Your task to perform on an android device: change text size in settings app Image 0: 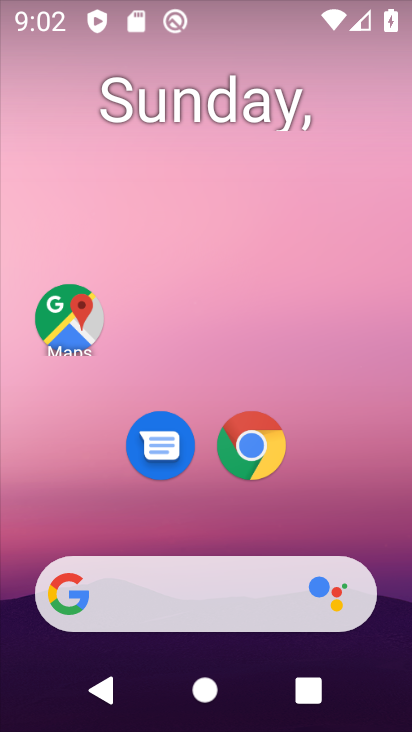
Step 0: drag from (144, 593) to (285, 74)
Your task to perform on an android device: change text size in settings app Image 1: 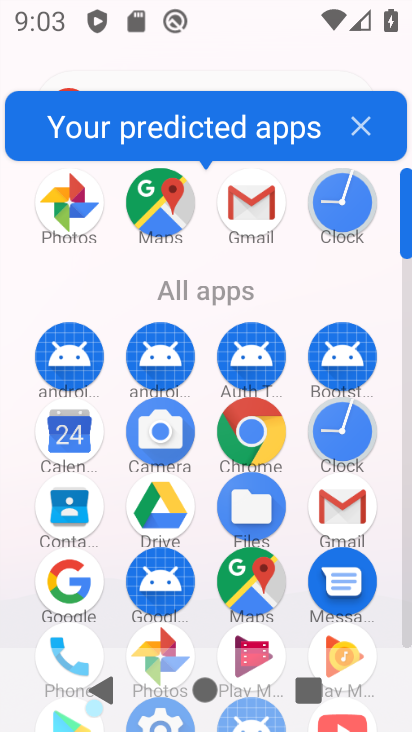
Step 1: drag from (159, 640) to (358, 145)
Your task to perform on an android device: change text size in settings app Image 2: 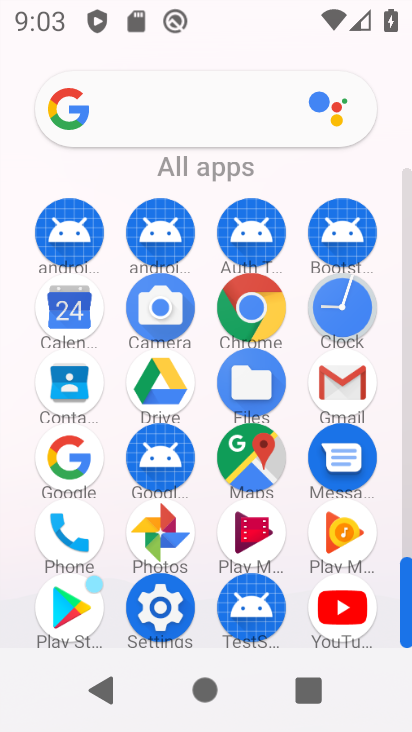
Step 2: click (163, 612)
Your task to perform on an android device: change text size in settings app Image 3: 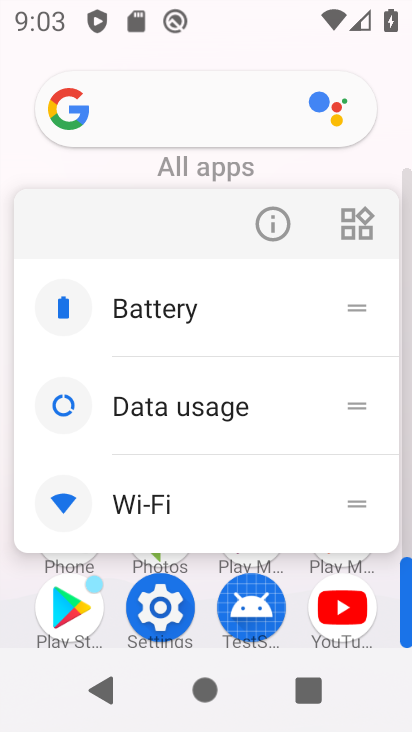
Step 3: click (165, 619)
Your task to perform on an android device: change text size in settings app Image 4: 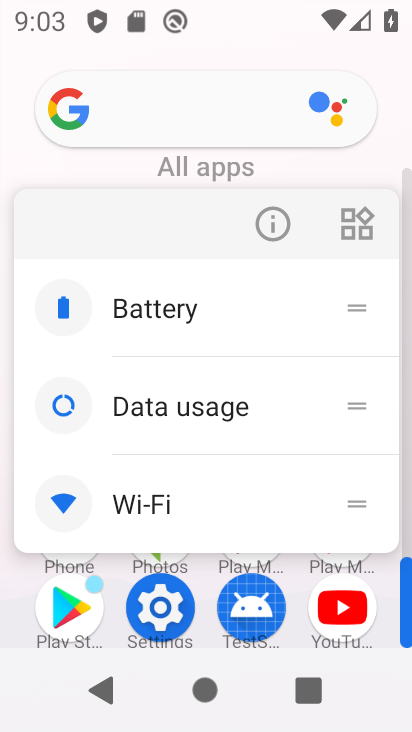
Step 4: click (163, 610)
Your task to perform on an android device: change text size in settings app Image 5: 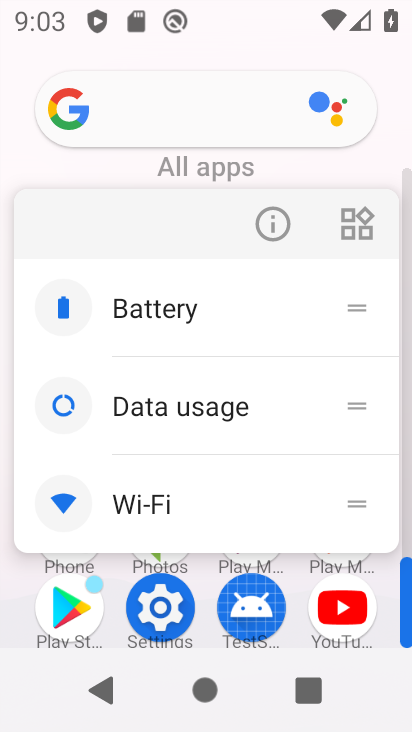
Step 5: click (163, 610)
Your task to perform on an android device: change text size in settings app Image 6: 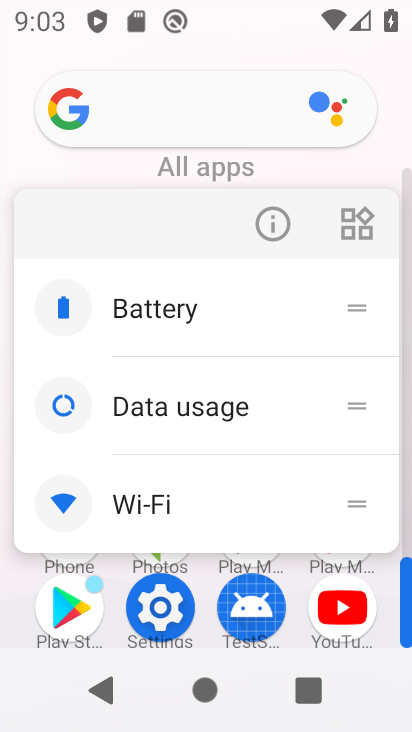
Step 6: click (163, 610)
Your task to perform on an android device: change text size in settings app Image 7: 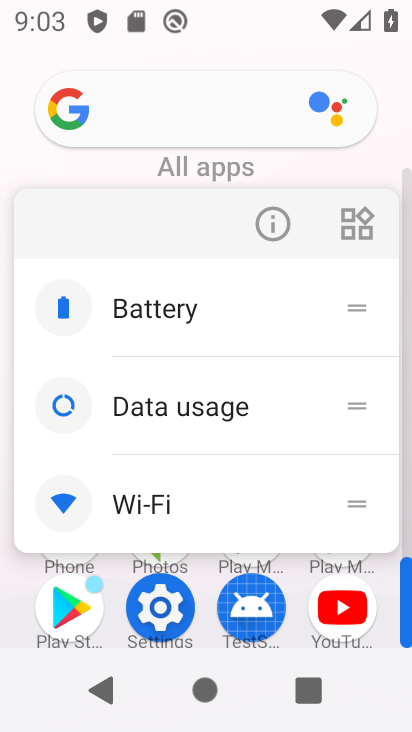
Step 7: click (163, 611)
Your task to perform on an android device: change text size in settings app Image 8: 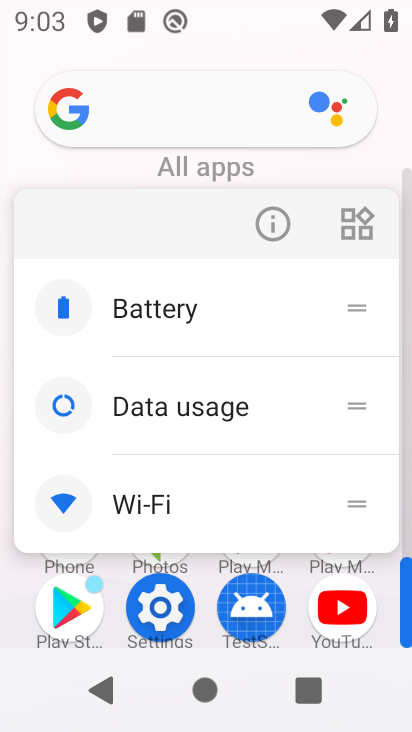
Step 8: click (163, 611)
Your task to perform on an android device: change text size in settings app Image 9: 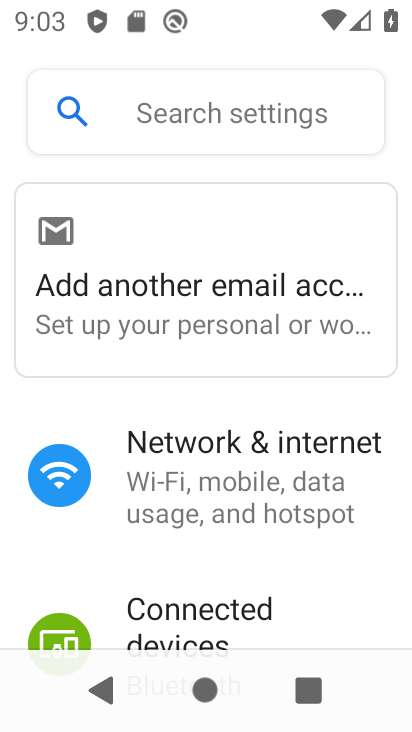
Step 9: drag from (229, 616) to (373, 183)
Your task to perform on an android device: change text size in settings app Image 10: 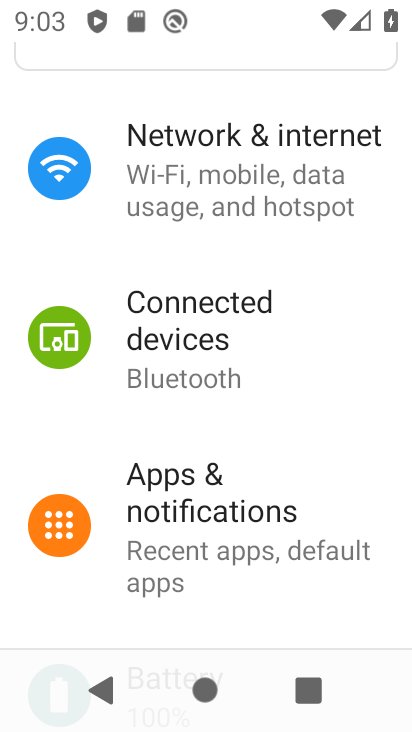
Step 10: drag from (153, 610) to (327, 65)
Your task to perform on an android device: change text size in settings app Image 11: 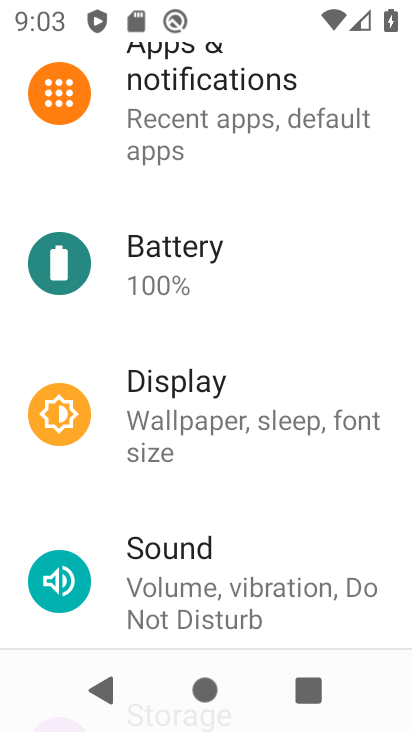
Step 11: drag from (176, 616) to (294, 235)
Your task to perform on an android device: change text size in settings app Image 12: 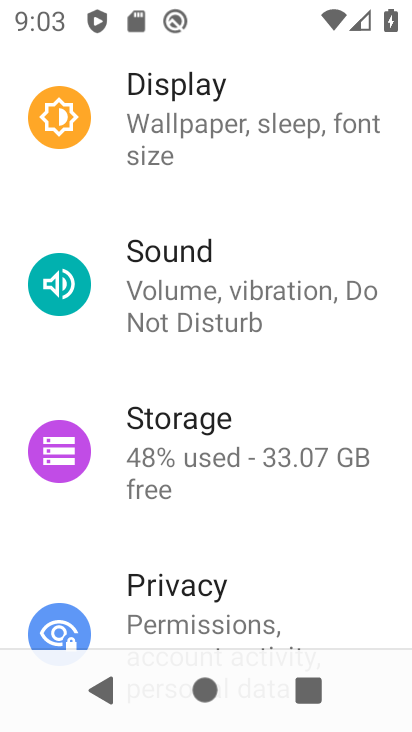
Step 12: drag from (280, 547) to (365, 76)
Your task to perform on an android device: change text size in settings app Image 13: 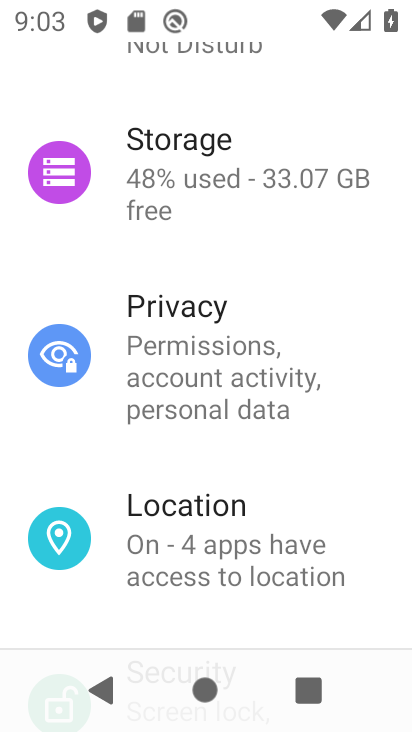
Step 13: drag from (296, 230) to (267, 620)
Your task to perform on an android device: change text size in settings app Image 14: 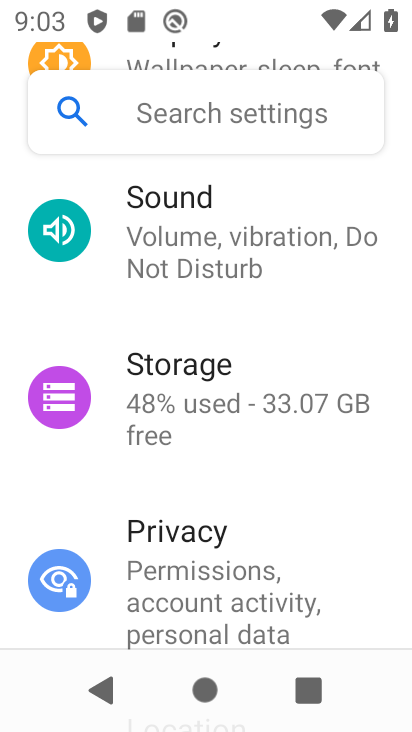
Step 14: drag from (307, 289) to (215, 617)
Your task to perform on an android device: change text size in settings app Image 15: 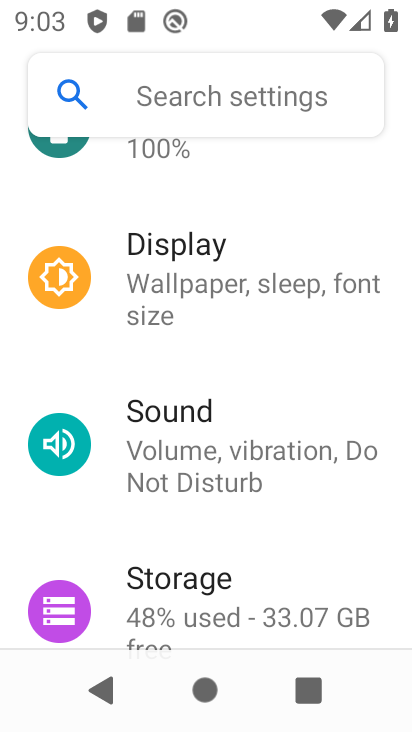
Step 15: click (233, 281)
Your task to perform on an android device: change text size in settings app Image 16: 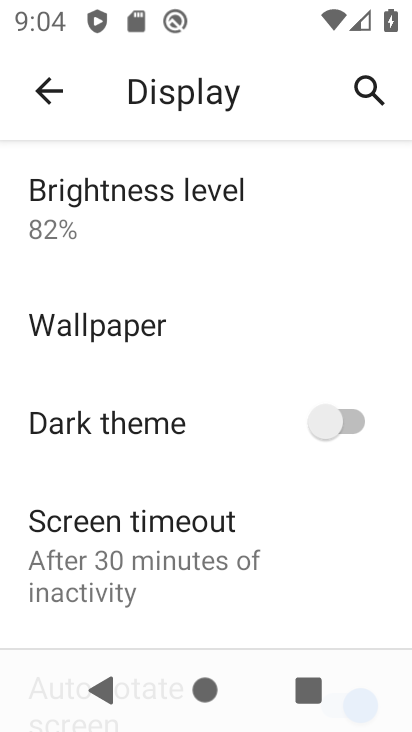
Step 16: drag from (167, 623) to (334, 146)
Your task to perform on an android device: change text size in settings app Image 17: 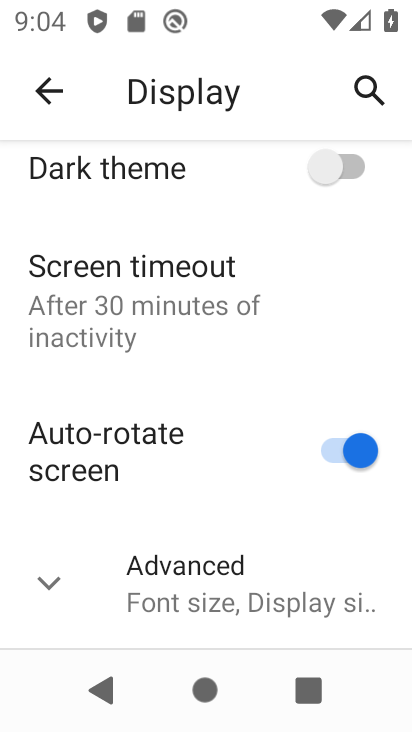
Step 17: click (144, 570)
Your task to perform on an android device: change text size in settings app Image 18: 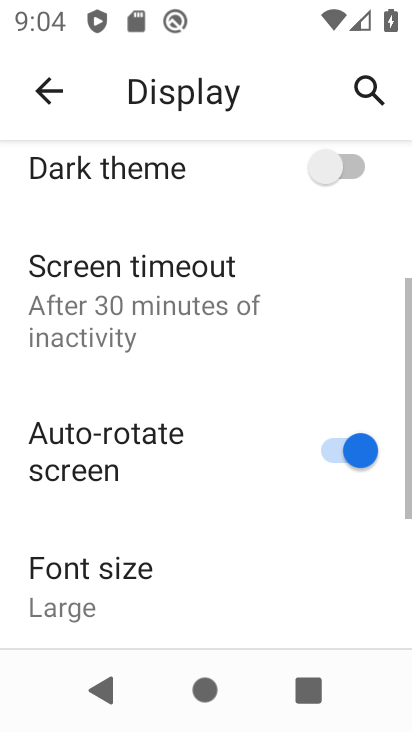
Step 18: drag from (150, 592) to (300, 133)
Your task to perform on an android device: change text size in settings app Image 19: 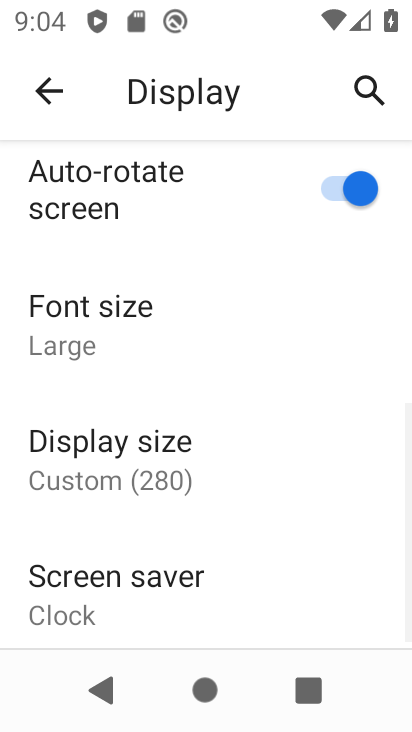
Step 19: click (96, 303)
Your task to perform on an android device: change text size in settings app Image 20: 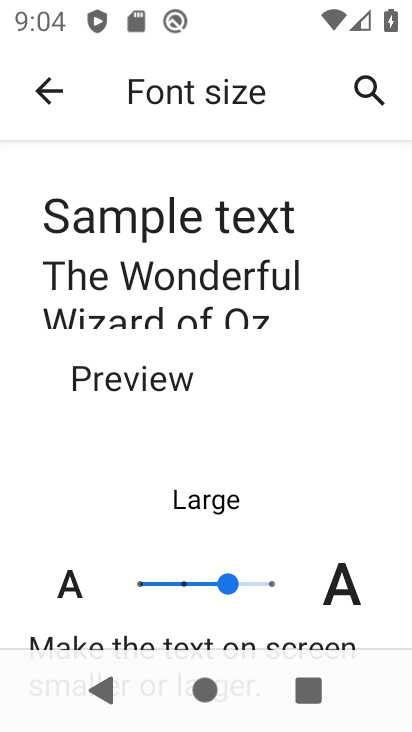
Step 20: click (141, 582)
Your task to perform on an android device: change text size in settings app Image 21: 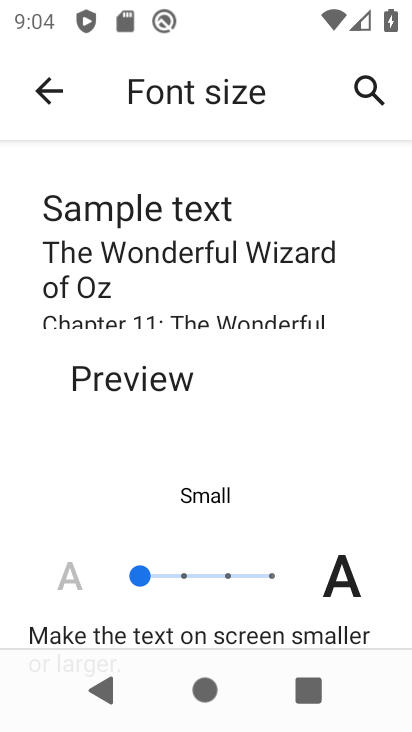
Step 21: task complete